Your task to perform on an android device: turn notification dots on Image 0: 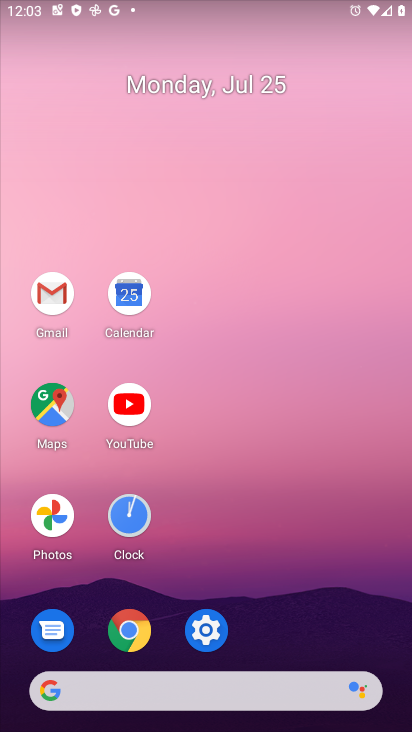
Step 0: click (206, 634)
Your task to perform on an android device: turn notification dots on Image 1: 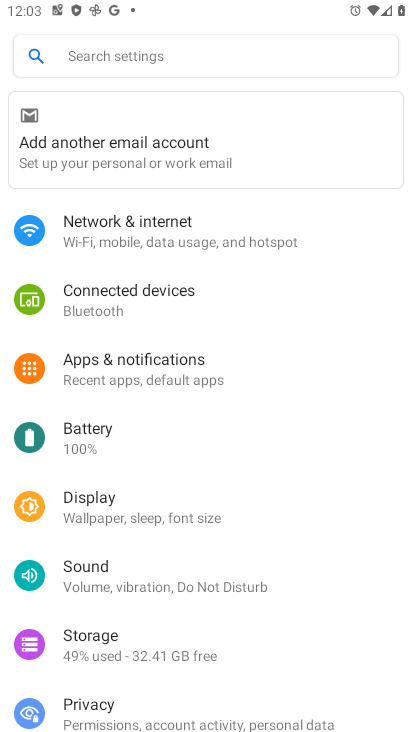
Step 1: click (130, 354)
Your task to perform on an android device: turn notification dots on Image 2: 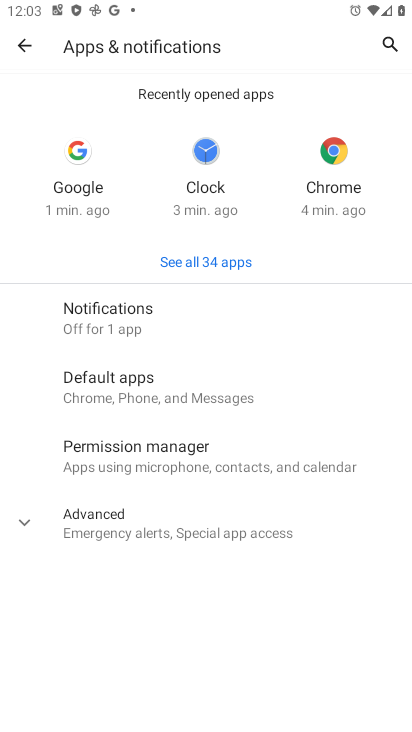
Step 2: click (121, 304)
Your task to perform on an android device: turn notification dots on Image 3: 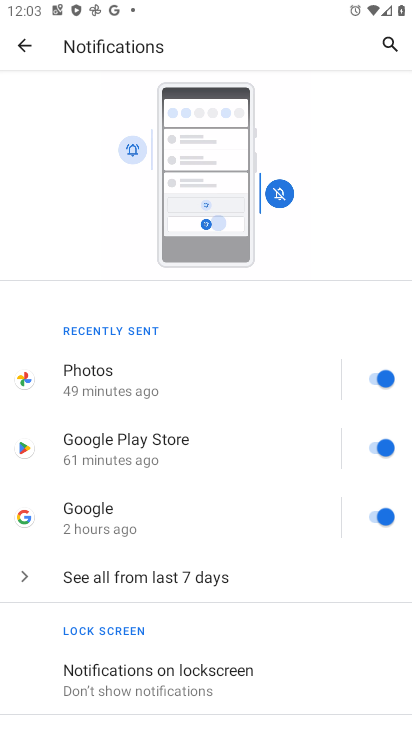
Step 3: drag from (274, 656) to (290, 293)
Your task to perform on an android device: turn notification dots on Image 4: 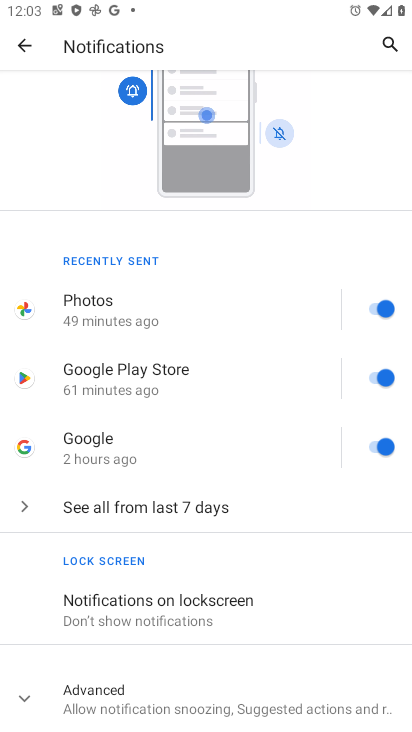
Step 4: click (28, 699)
Your task to perform on an android device: turn notification dots on Image 5: 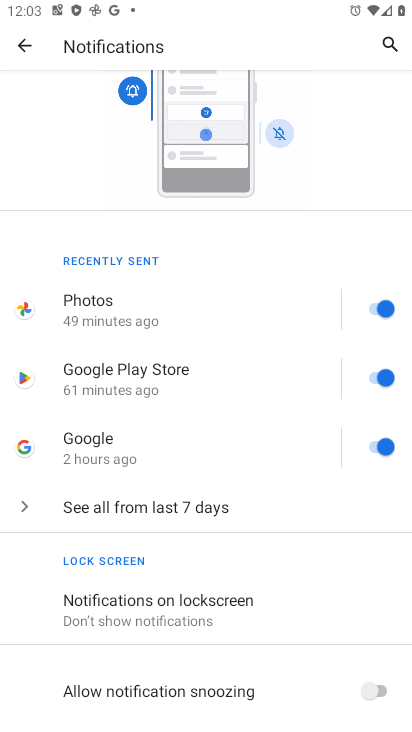
Step 5: task complete